Your task to perform on an android device: make emails show in primary in the gmail app Image 0: 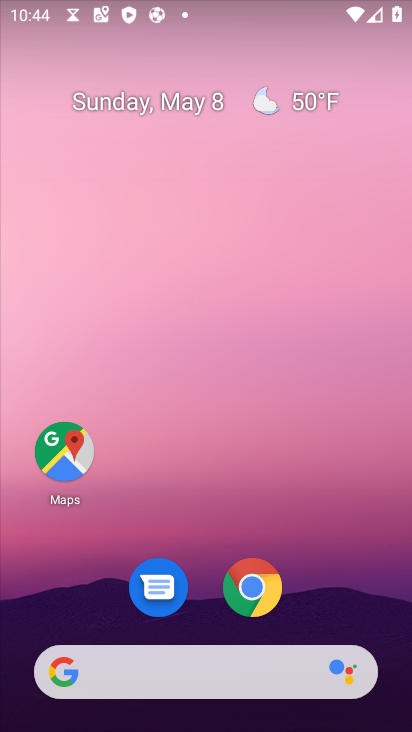
Step 0: drag from (340, 598) to (106, 59)
Your task to perform on an android device: make emails show in primary in the gmail app Image 1: 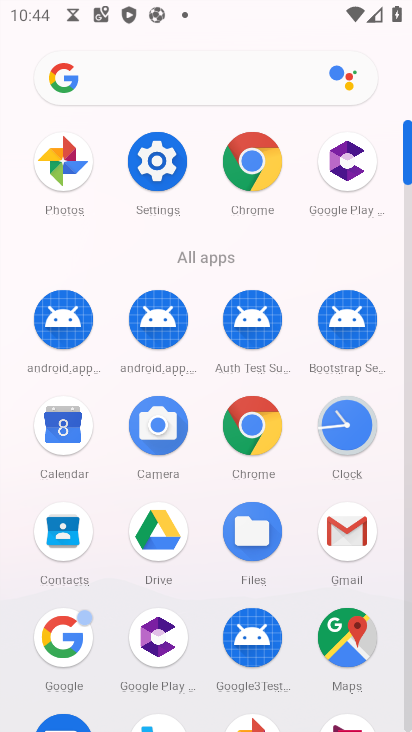
Step 1: click (350, 528)
Your task to perform on an android device: make emails show in primary in the gmail app Image 2: 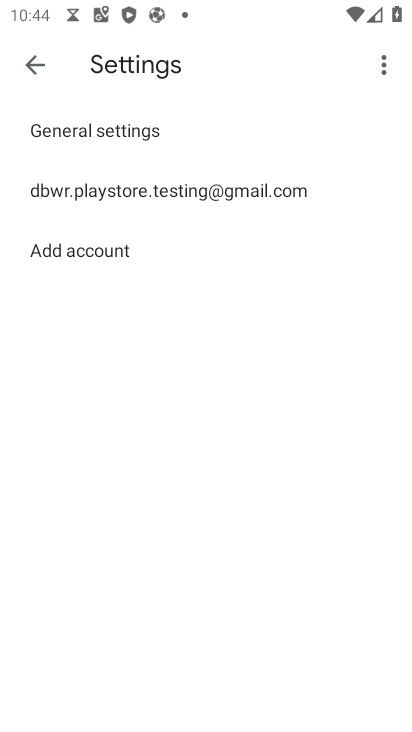
Step 2: click (39, 64)
Your task to perform on an android device: make emails show in primary in the gmail app Image 3: 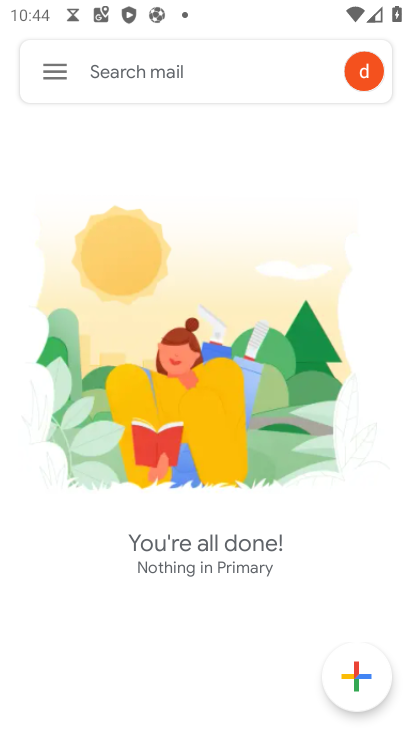
Step 3: click (46, 67)
Your task to perform on an android device: make emails show in primary in the gmail app Image 4: 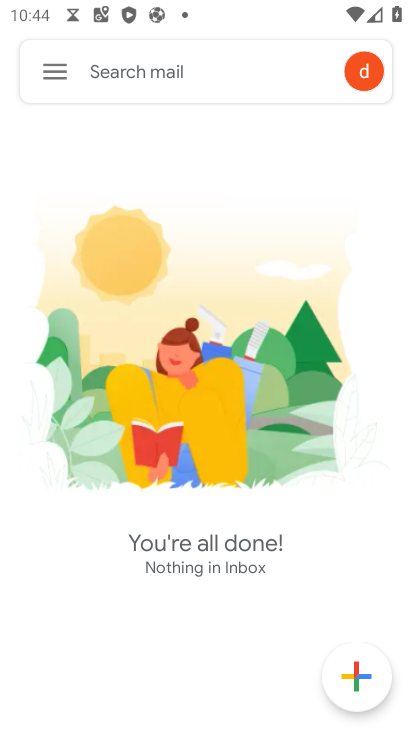
Step 4: click (56, 70)
Your task to perform on an android device: make emails show in primary in the gmail app Image 5: 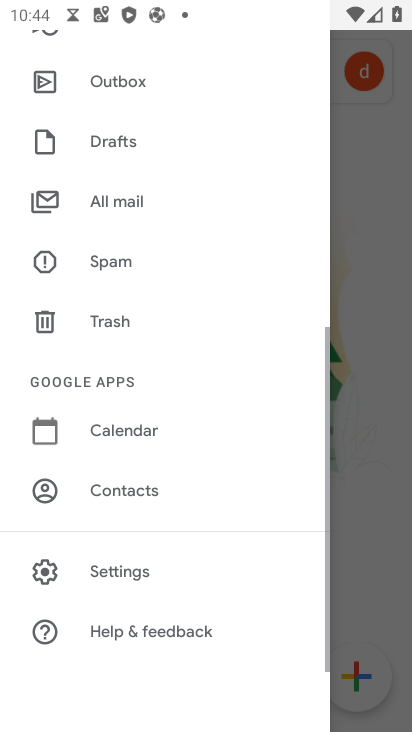
Step 5: drag from (105, 129) to (98, 634)
Your task to perform on an android device: make emails show in primary in the gmail app Image 6: 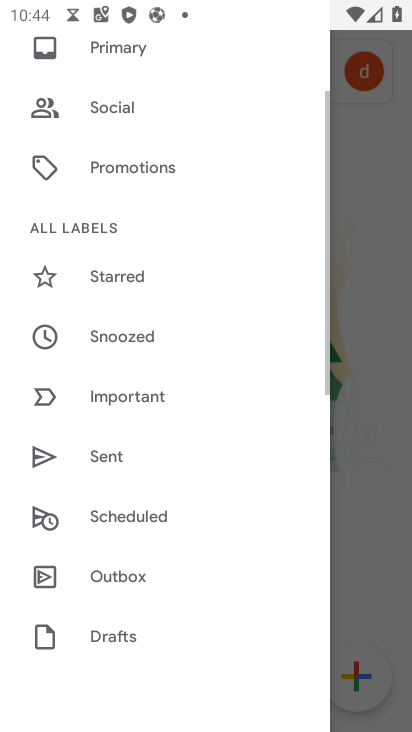
Step 6: drag from (160, 212) to (147, 671)
Your task to perform on an android device: make emails show in primary in the gmail app Image 7: 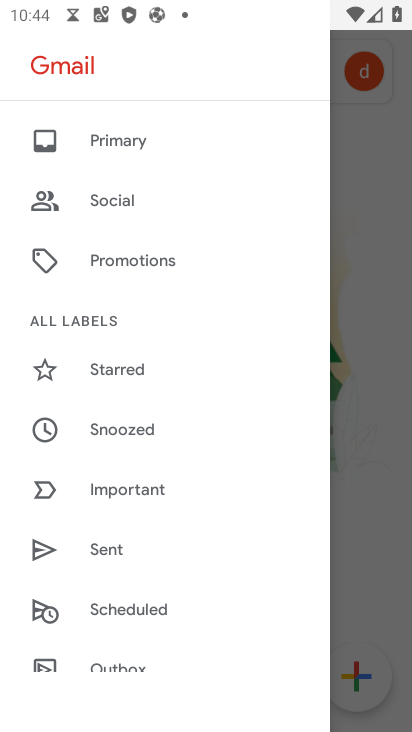
Step 7: click (122, 142)
Your task to perform on an android device: make emails show in primary in the gmail app Image 8: 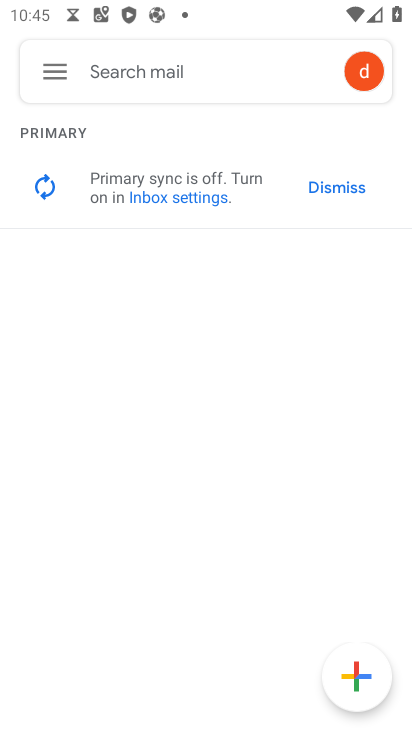
Step 8: task complete